Your task to perform on an android device: Go to Google Image 0: 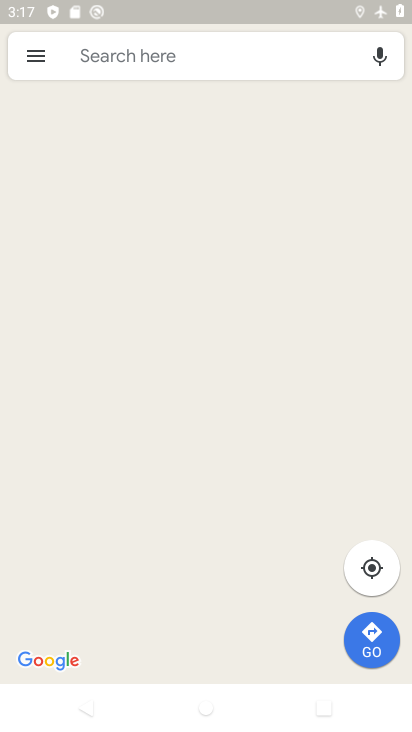
Step 0: press home button
Your task to perform on an android device: Go to Google Image 1: 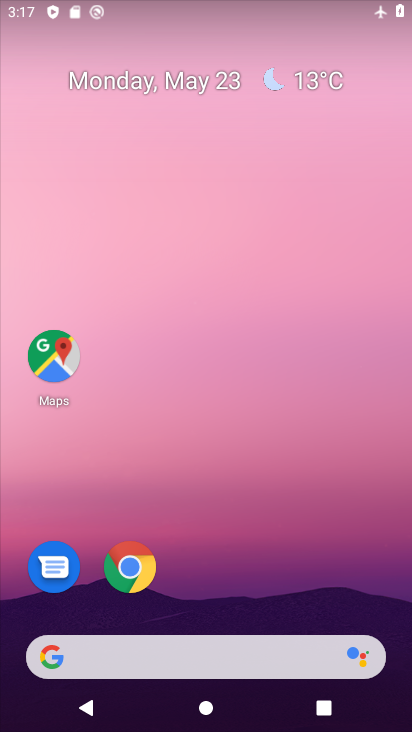
Step 1: drag from (289, 569) to (265, 51)
Your task to perform on an android device: Go to Google Image 2: 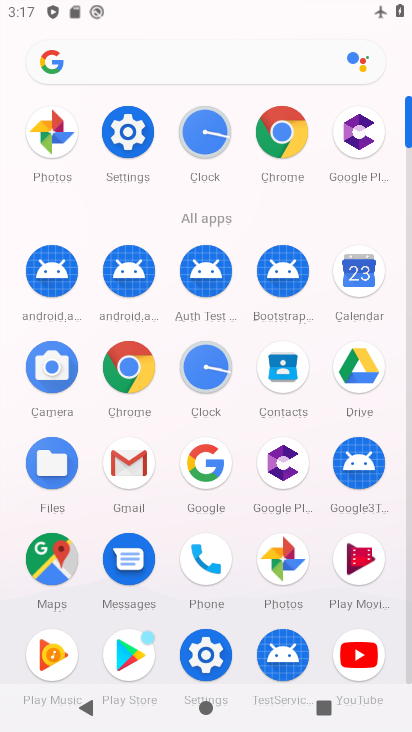
Step 2: click (217, 442)
Your task to perform on an android device: Go to Google Image 3: 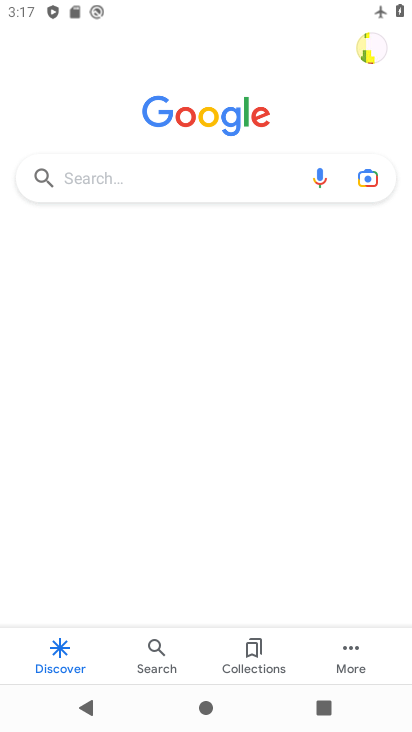
Step 3: task complete